Your task to perform on an android device: Clear the cart on target.com. Search for "usb-a to usb-b" on target.com, select the first entry, add it to the cart, then select checkout. Image 0: 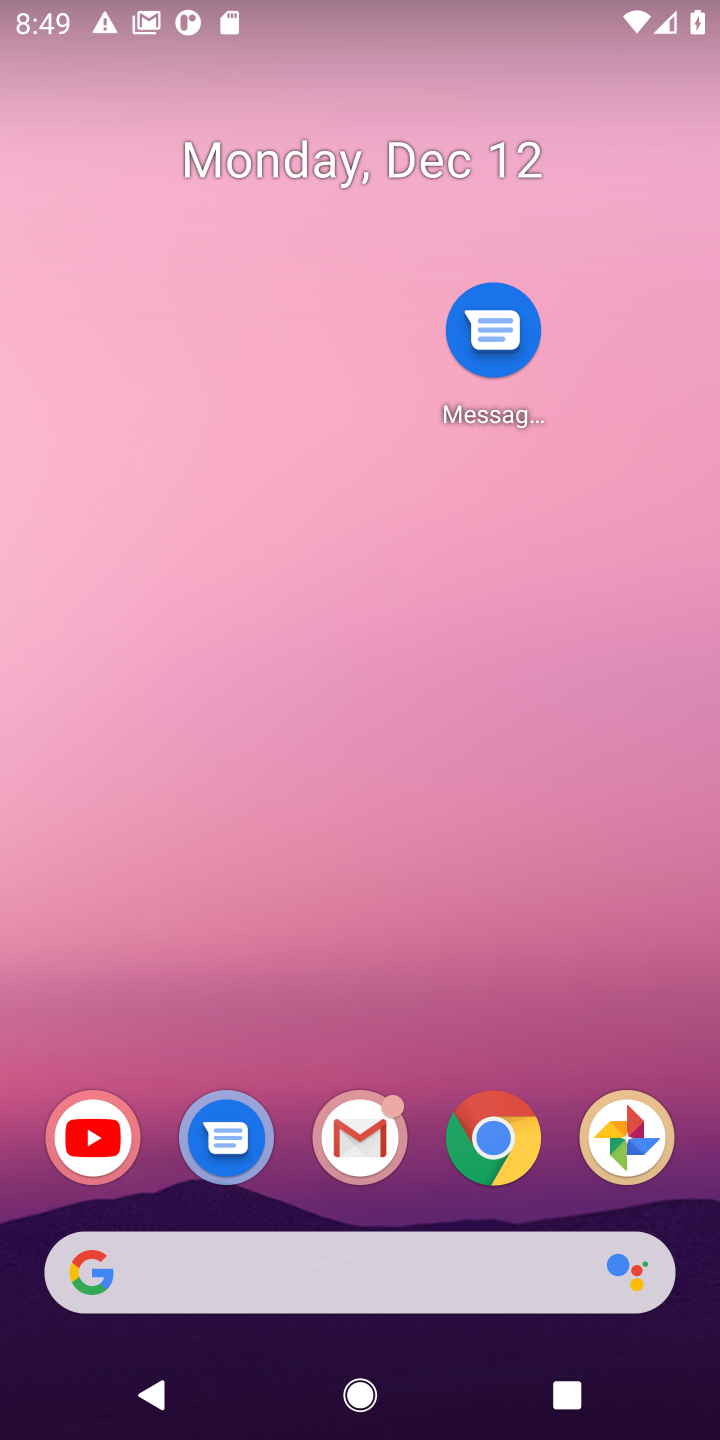
Step 0: drag from (411, 1092) to (280, 625)
Your task to perform on an android device: Clear the cart on target.com. Search for "usb-a to usb-b" on target.com, select the first entry, add it to the cart, then select checkout. Image 1: 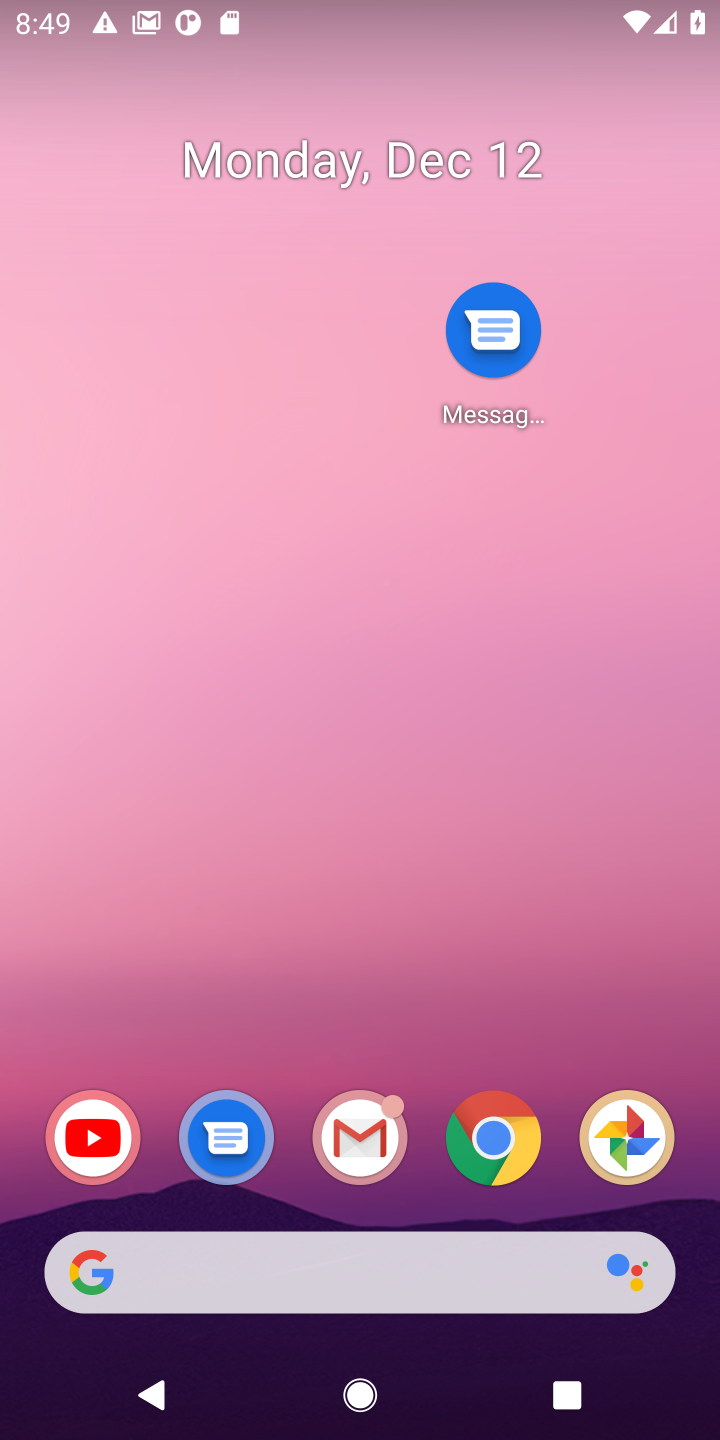
Step 1: drag from (265, 1085) to (261, 423)
Your task to perform on an android device: Clear the cart on target.com. Search for "usb-a to usb-b" on target.com, select the first entry, add it to the cart, then select checkout. Image 2: 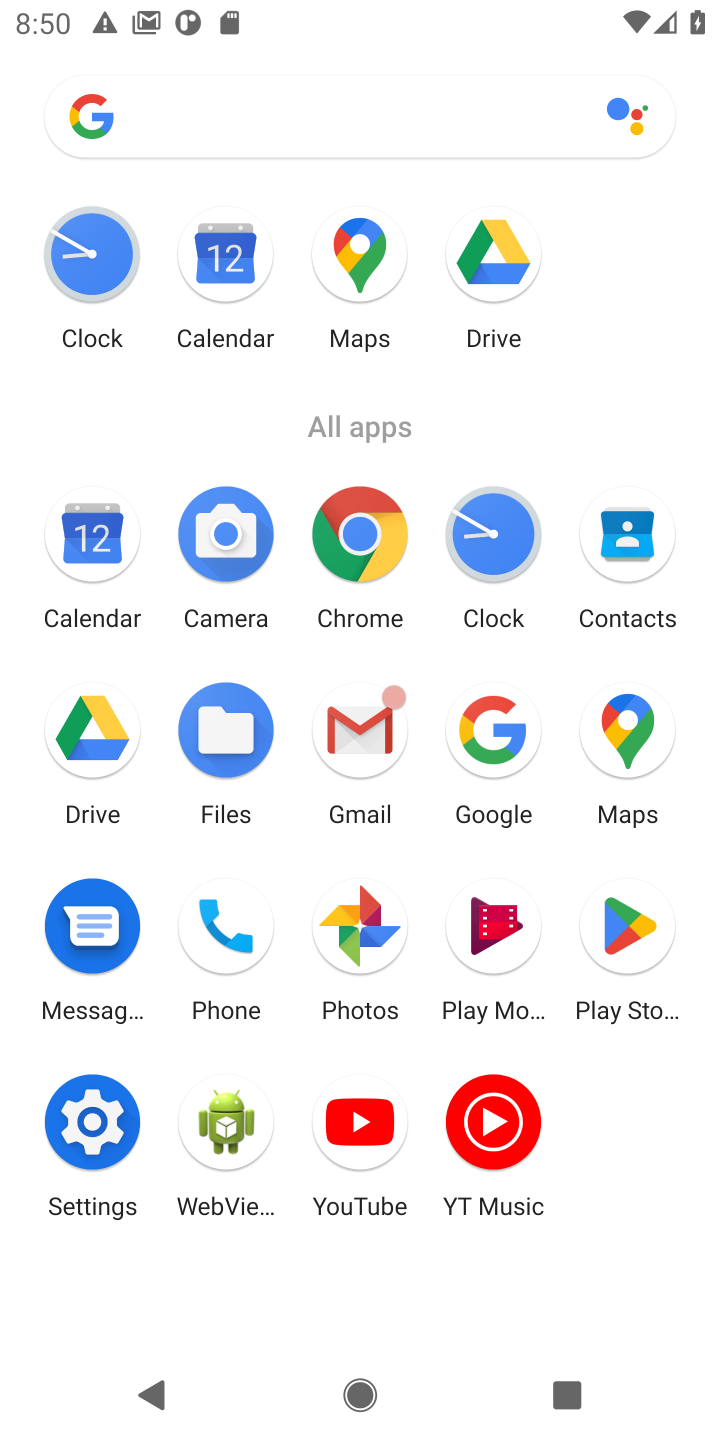
Step 2: click (479, 716)
Your task to perform on an android device: Clear the cart on target.com. Search for "usb-a to usb-b" on target.com, select the first entry, add it to the cart, then select checkout. Image 3: 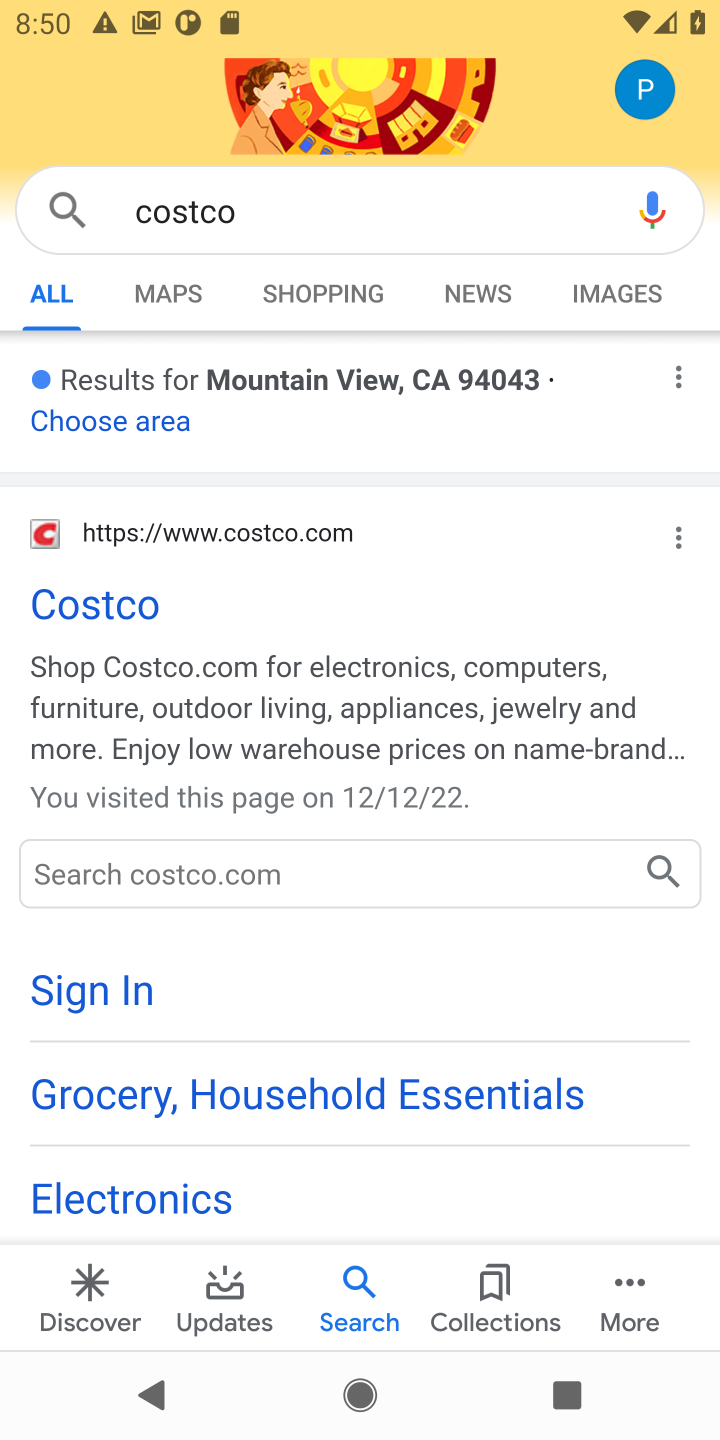
Step 3: click (180, 212)
Your task to perform on an android device: Clear the cart on target.com. Search for "usb-a to usb-b" on target.com, select the first entry, add it to the cart, then select checkout. Image 4: 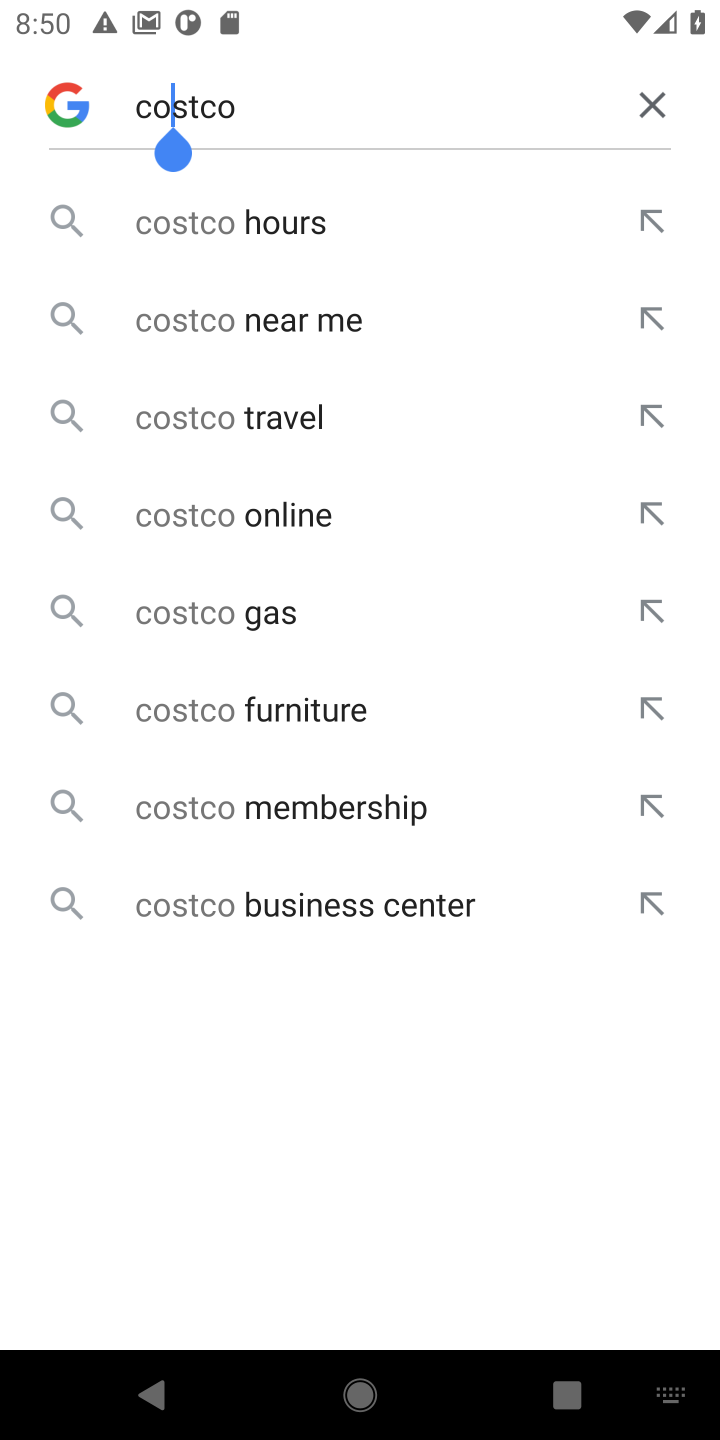
Step 4: click (651, 105)
Your task to perform on an android device: Clear the cart on target.com. Search for "usb-a to usb-b" on target.com, select the first entry, add it to the cart, then select checkout. Image 5: 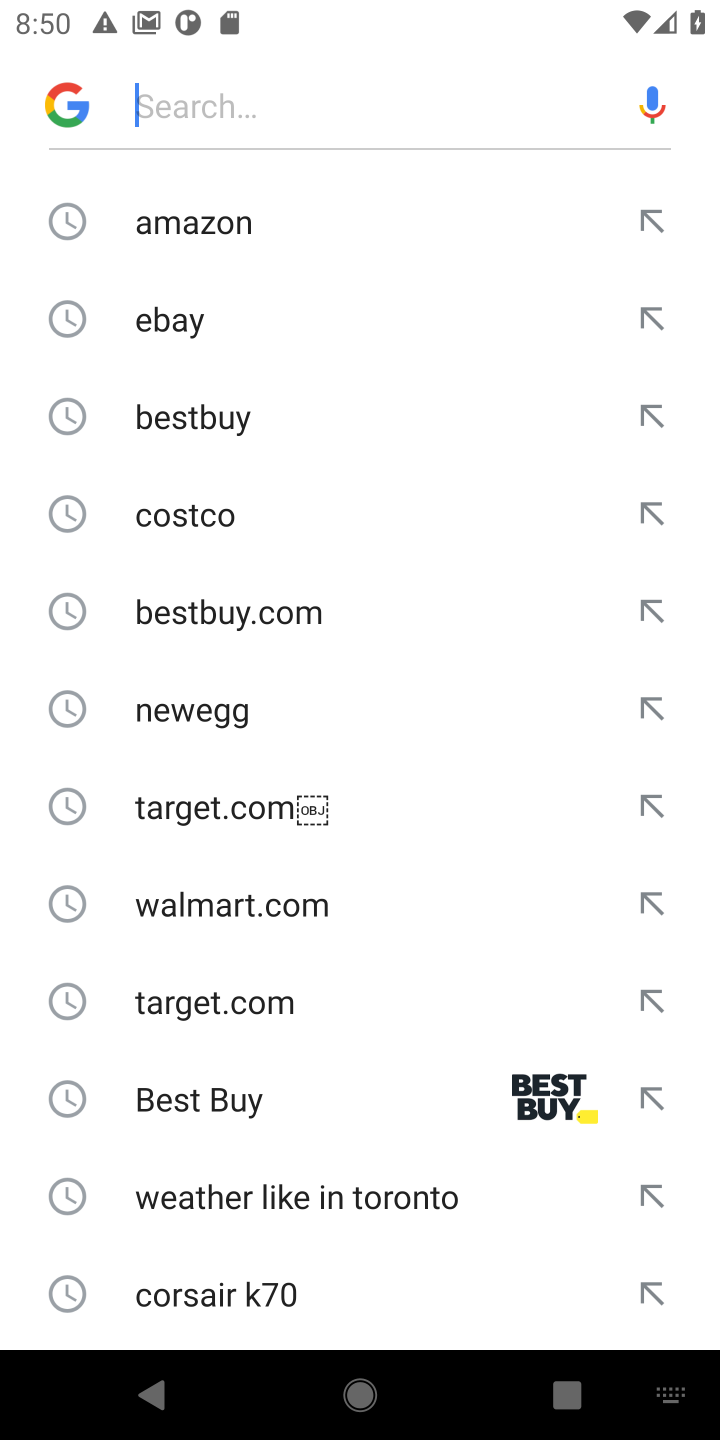
Step 5: click (663, 807)
Your task to perform on an android device: Clear the cart on target.com. Search for "usb-a to usb-b" on target.com, select the first entry, add it to the cart, then select checkout. Image 6: 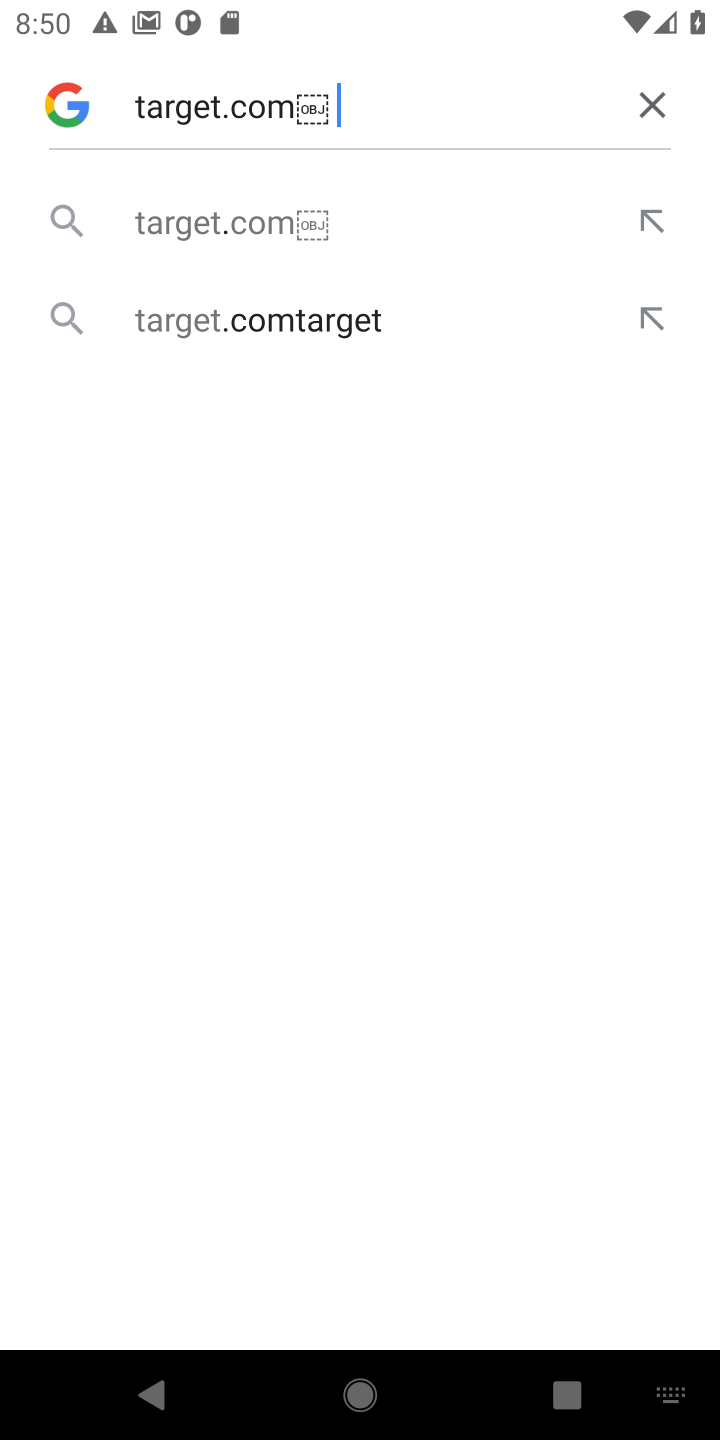
Step 6: click (168, 220)
Your task to perform on an android device: Clear the cart on target.com. Search for "usb-a to usb-b" on target.com, select the first entry, add it to the cart, then select checkout. Image 7: 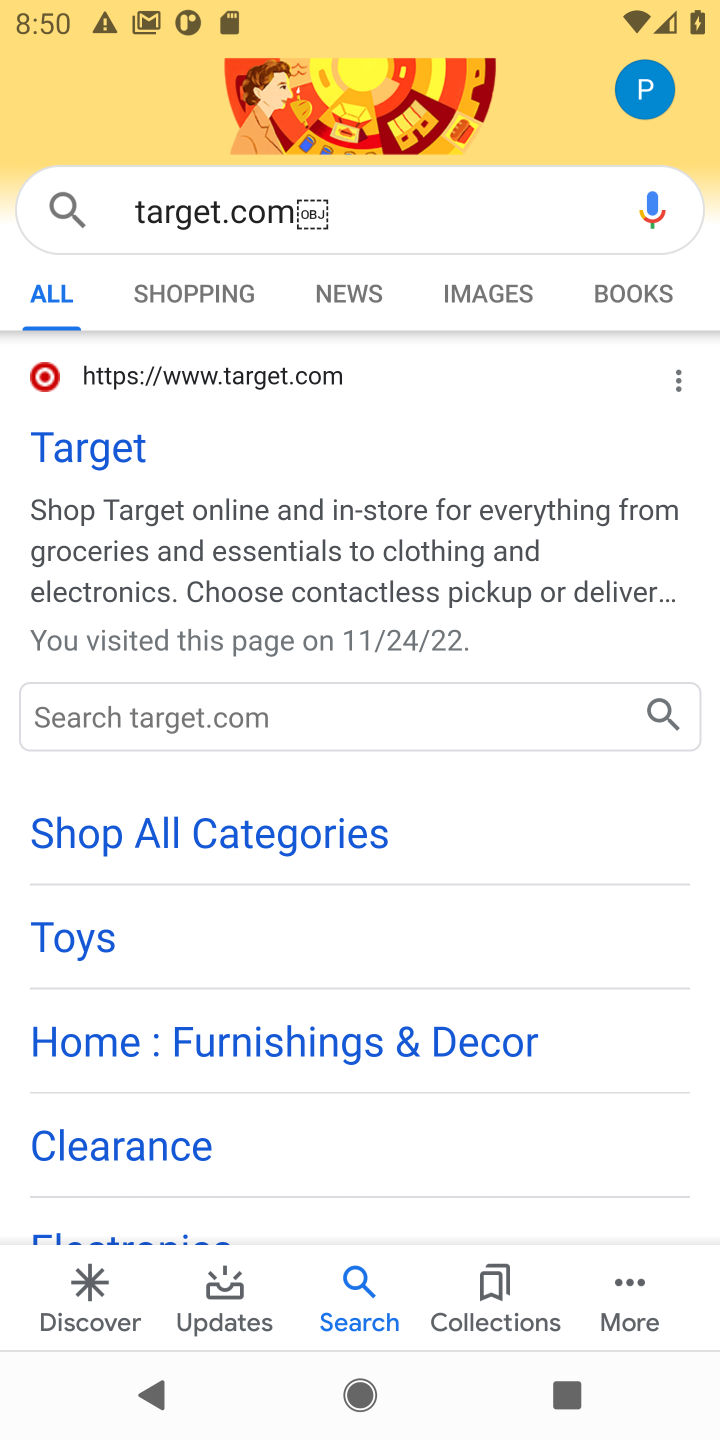
Step 7: click (95, 444)
Your task to perform on an android device: Clear the cart on target.com. Search for "usb-a to usb-b" on target.com, select the first entry, add it to the cart, then select checkout. Image 8: 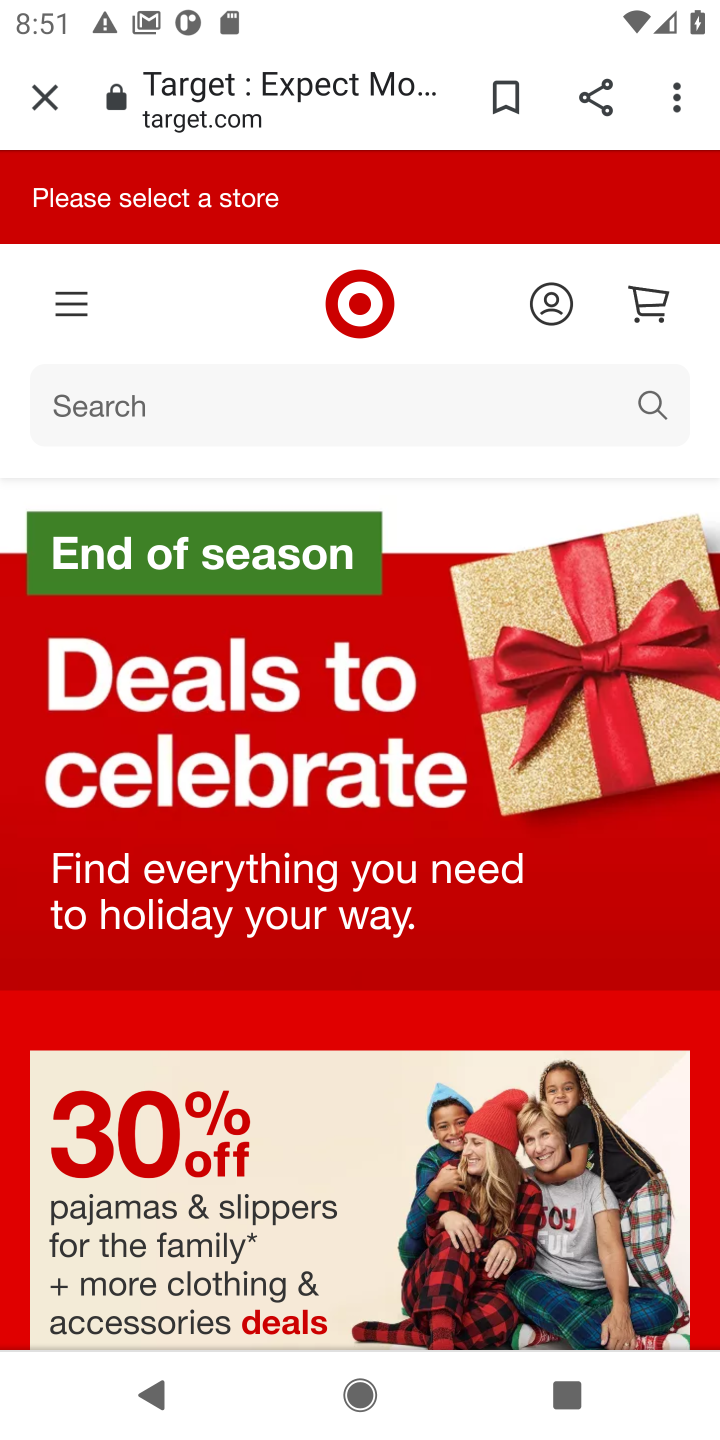
Step 8: click (106, 414)
Your task to perform on an android device: Clear the cart on target.com. Search for "usb-a to usb-b" on target.com, select the first entry, add it to the cart, then select checkout. Image 9: 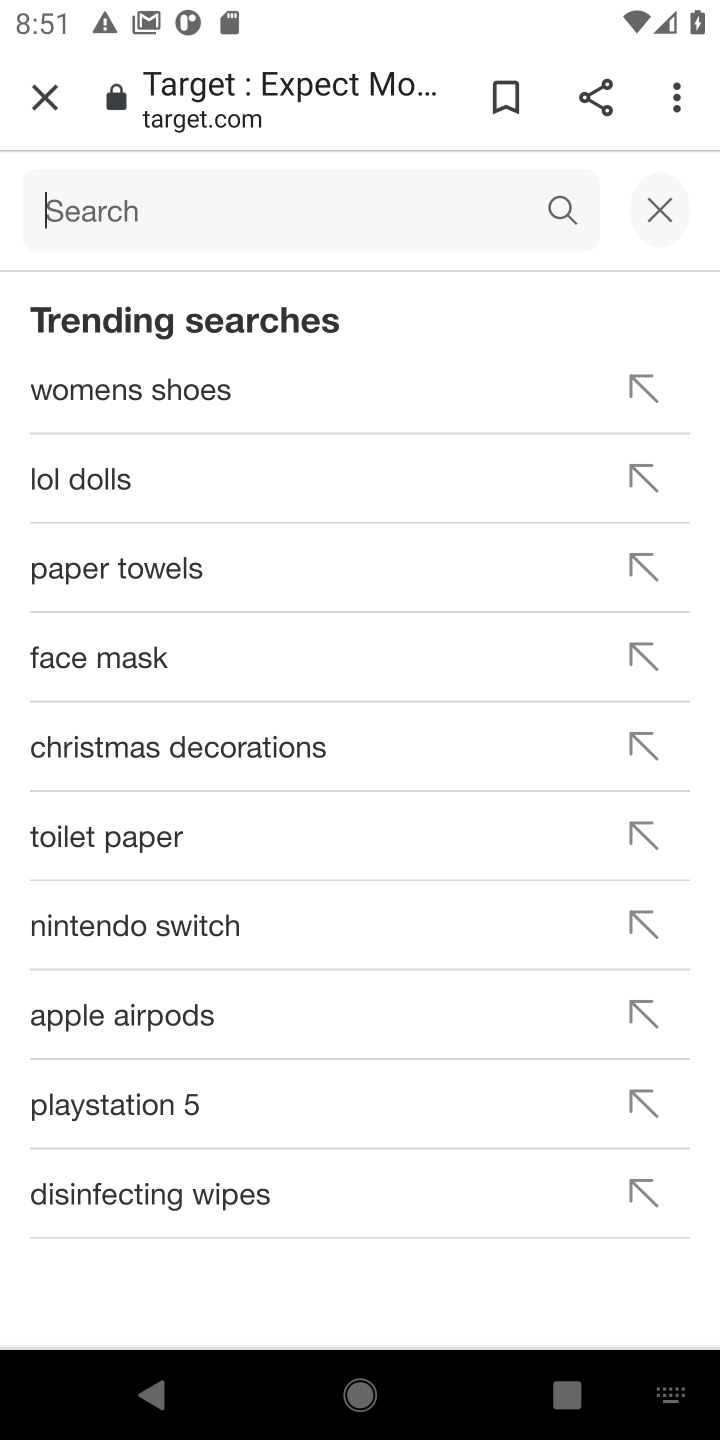
Step 9: type "usb-a to usb-b"
Your task to perform on an android device: Clear the cart on target.com. Search for "usb-a to usb-b" on target.com, select the first entry, add it to the cart, then select checkout. Image 10: 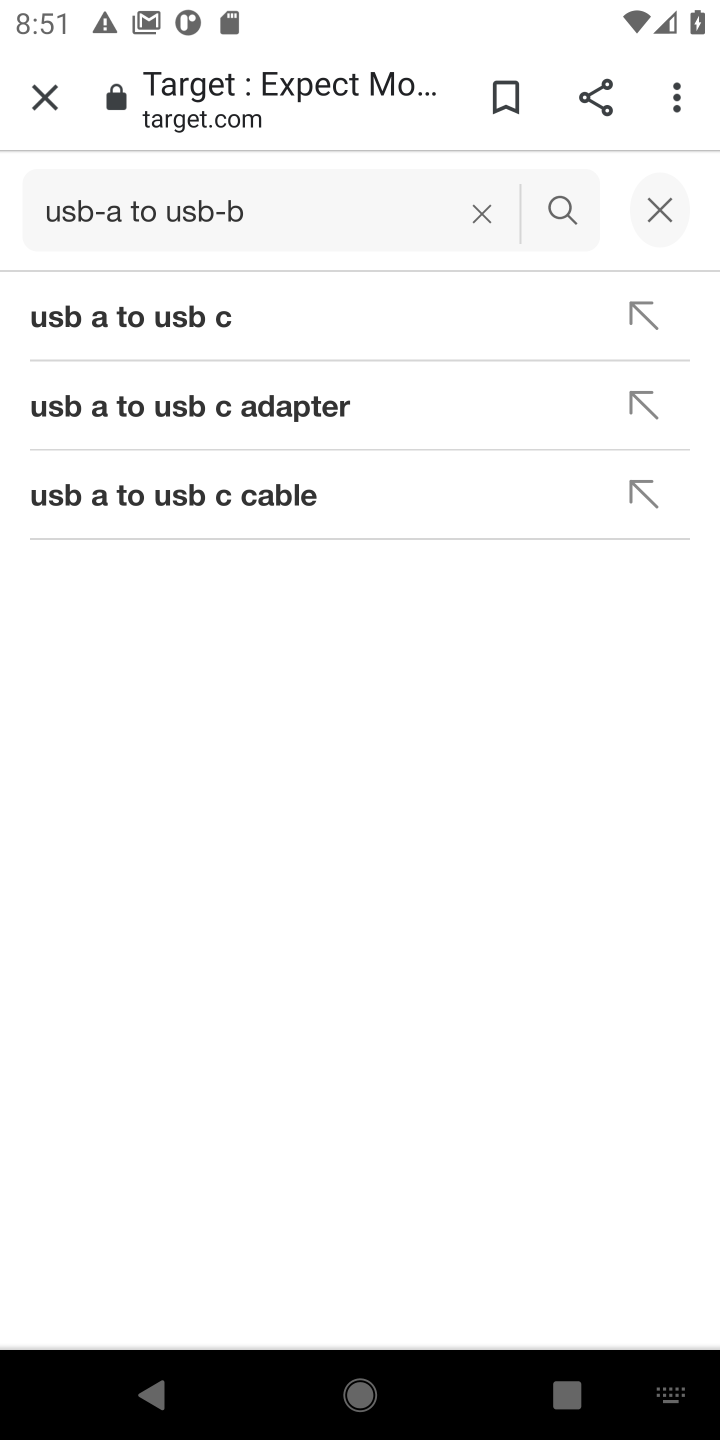
Step 10: click (112, 328)
Your task to perform on an android device: Clear the cart on target.com. Search for "usb-a to usb-b" on target.com, select the first entry, add it to the cart, then select checkout. Image 11: 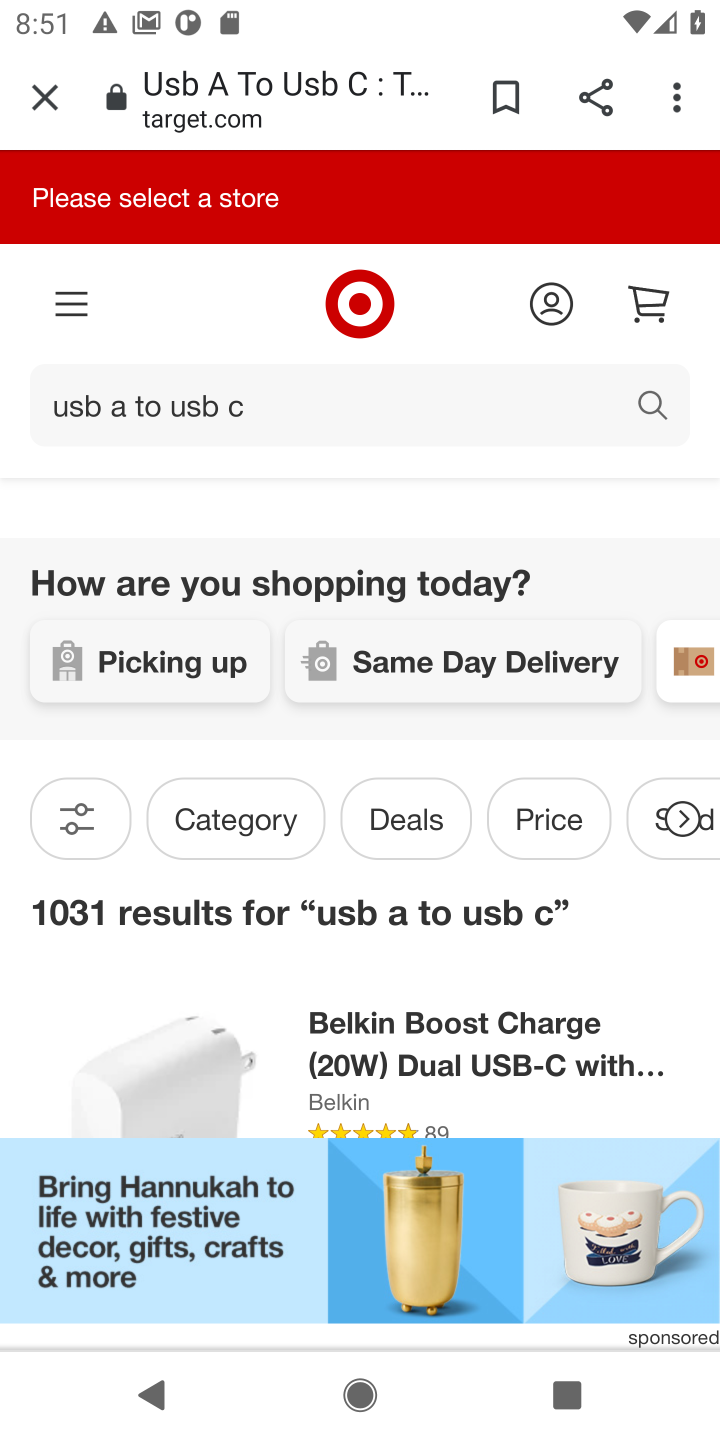
Step 11: drag from (198, 1022) to (139, 591)
Your task to perform on an android device: Clear the cart on target.com. Search for "usb-a to usb-b" on target.com, select the first entry, add it to the cart, then select checkout. Image 12: 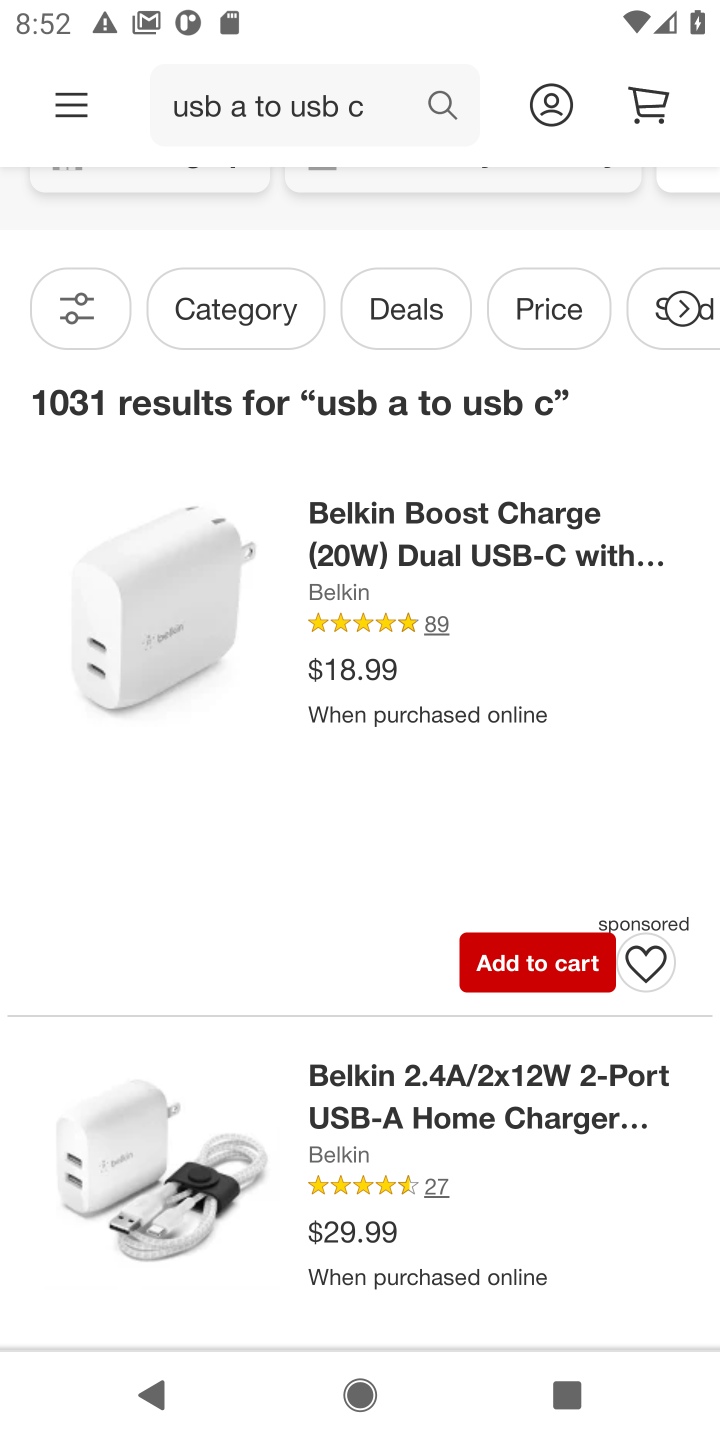
Step 12: click (553, 970)
Your task to perform on an android device: Clear the cart on target.com. Search for "usb-a to usb-b" on target.com, select the first entry, add it to the cart, then select checkout. Image 13: 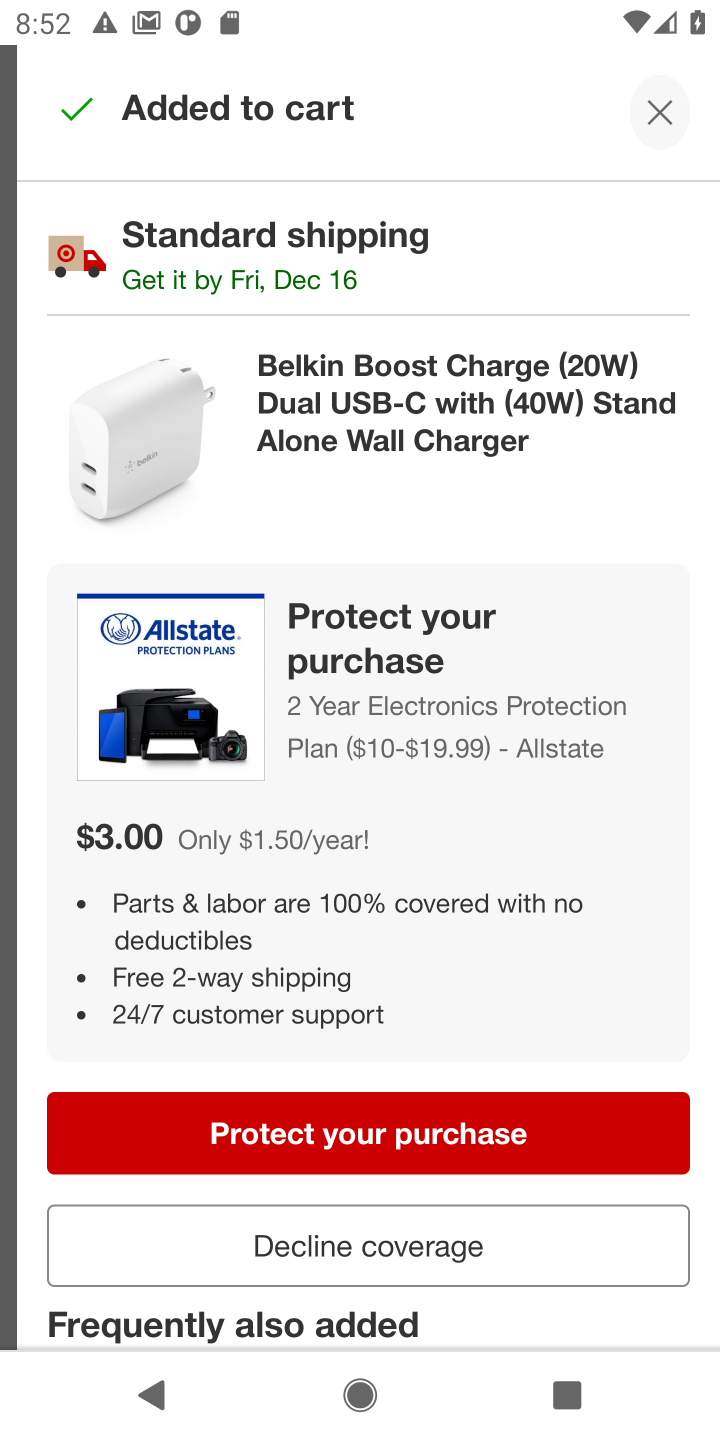
Step 13: drag from (372, 1052) to (299, 582)
Your task to perform on an android device: Clear the cart on target.com. Search for "usb-a to usb-b" on target.com, select the first entry, add it to the cart, then select checkout. Image 14: 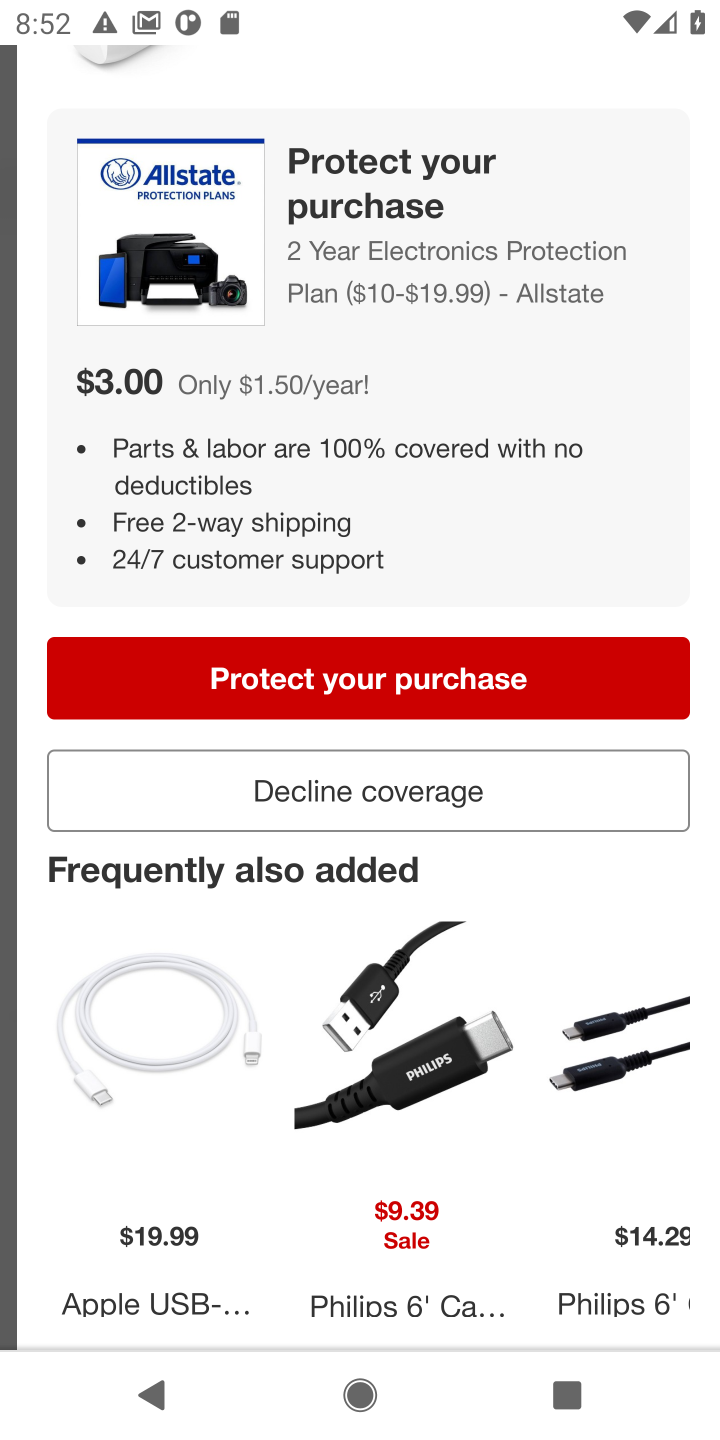
Step 14: drag from (354, 250) to (371, 1209)
Your task to perform on an android device: Clear the cart on target.com. Search for "usb-a to usb-b" on target.com, select the first entry, add it to the cart, then select checkout. Image 15: 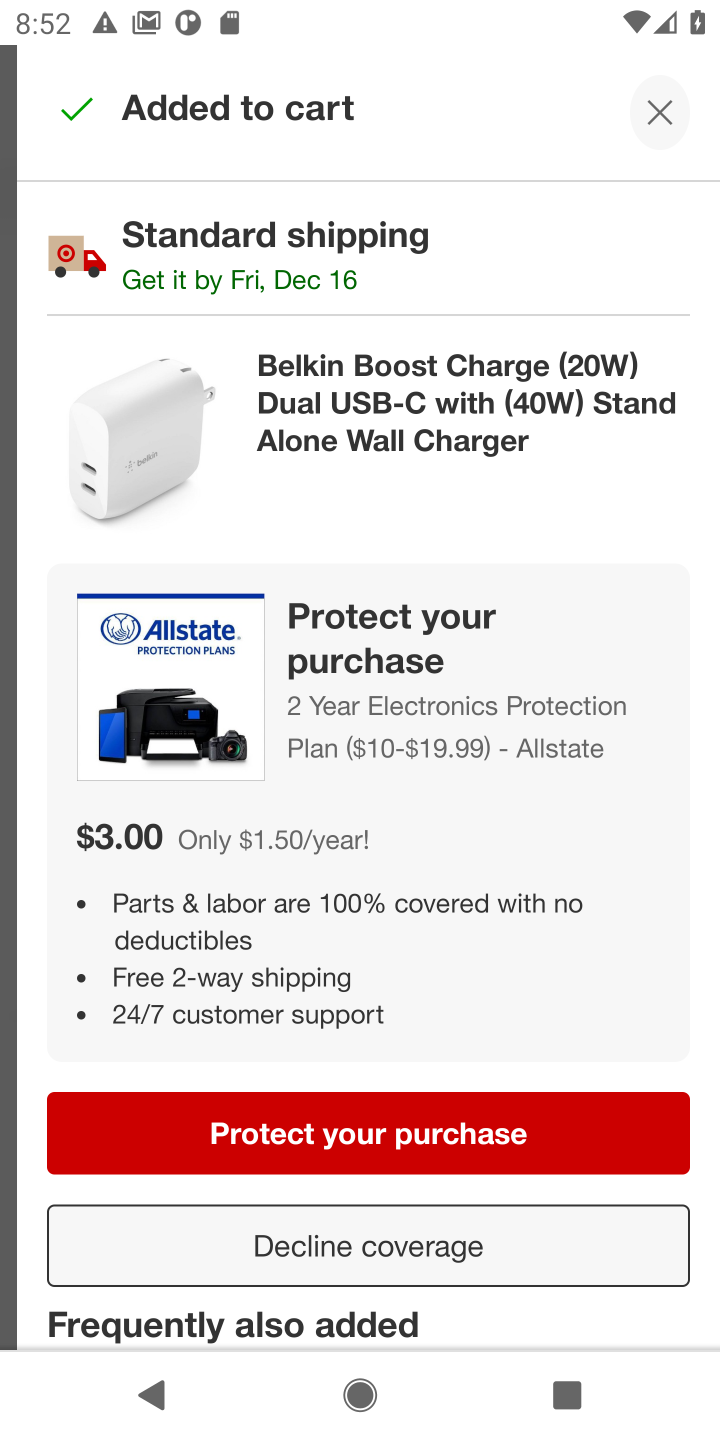
Step 15: click (655, 118)
Your task to perform on an android device: Clear the cart on target.com. Search for "usb-a to usb-b" on target.com, select the first entry, add it to the cart, then select checkout. Image 16: 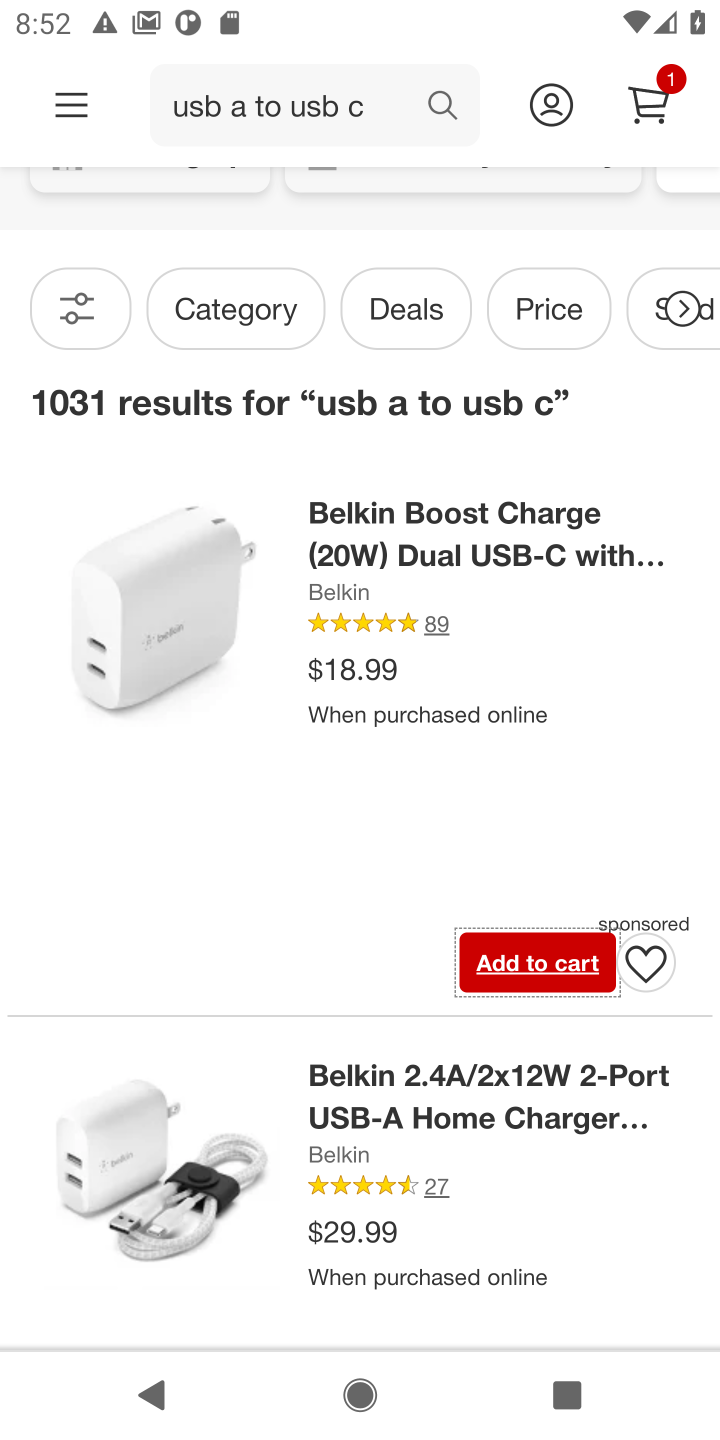
Step 16: click (644, 89)
Your task to perform on an android device: Clear the cart on target.com. Search for "usb-a to usb-b" on target.com, select the first entry, add it to the cart, then select checkout. Image 17: 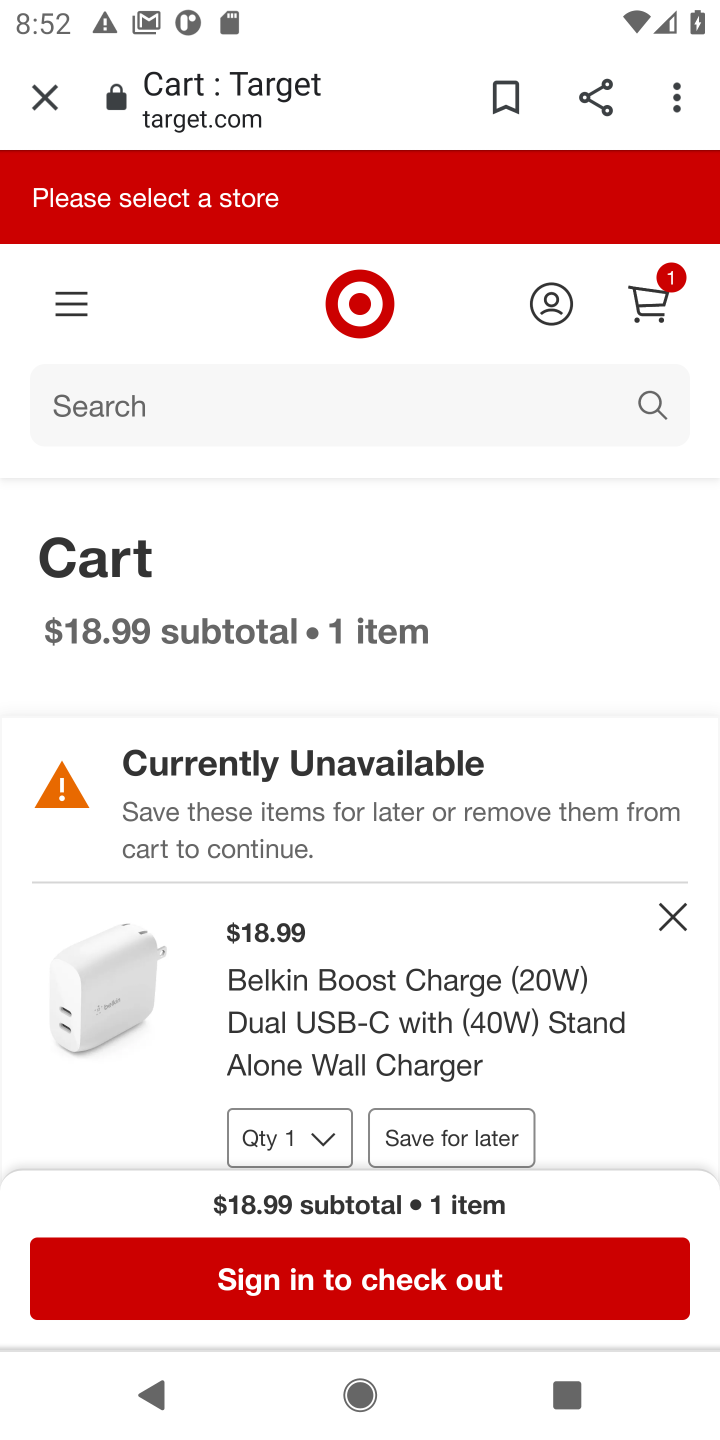
Step 17: click (434, 1281)
Your task to perform on an android device: Clear the cart on target.com. Search for "usb-a to usb-b" on target.com, select the first entry, add it to the cart, then select checkout. Image 18: 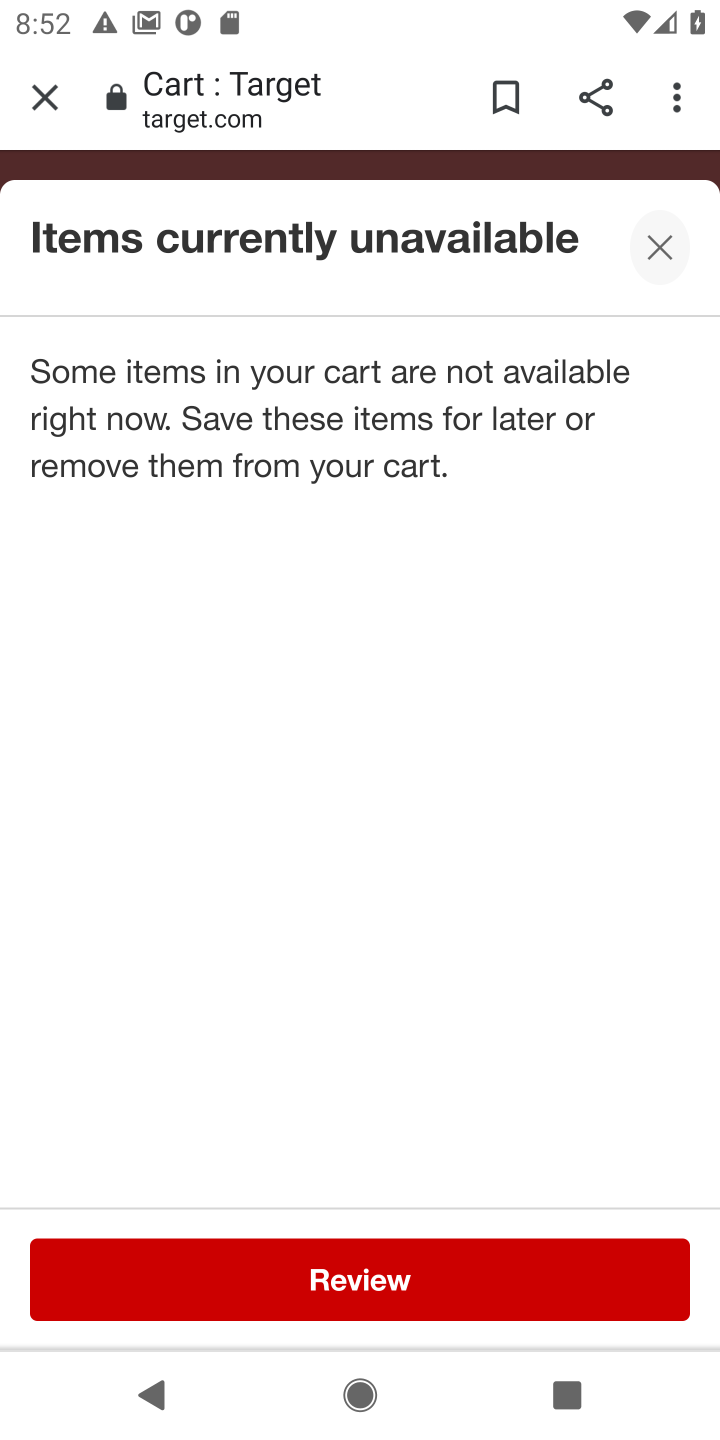
Step 18: task complete